Your task to perform on an android device: turn smart compose on in the gmail app Image 0: 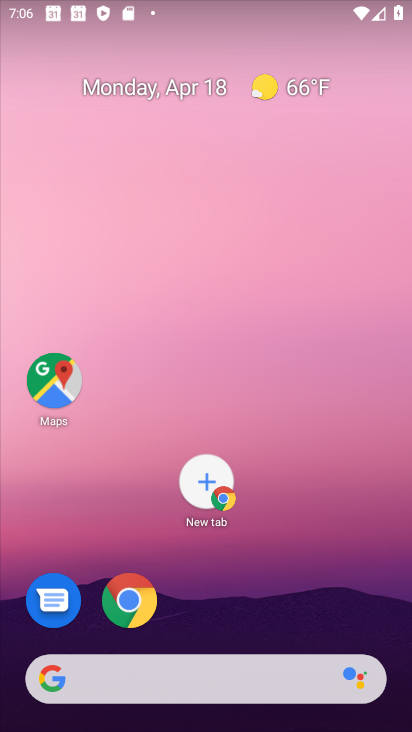
Step 0: drag from (270, 474) to (290, 30)
Your task to perform on an android device: turn smart compose on in the gmail app Image 1: 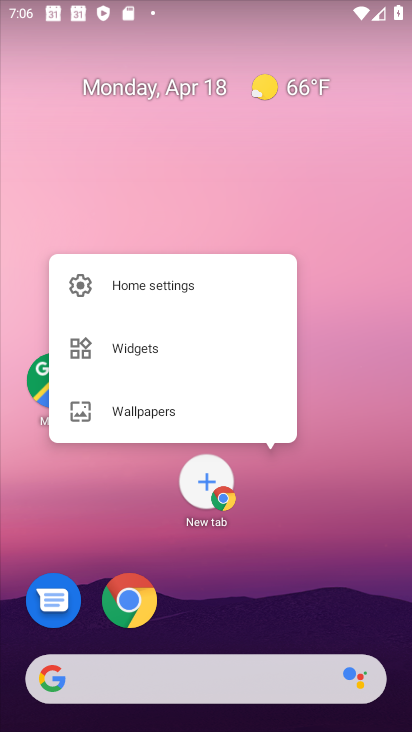
Step 1: click (367, 463)
Your task to perform on an android device: turn smart compose on in the gmail app Image 2: 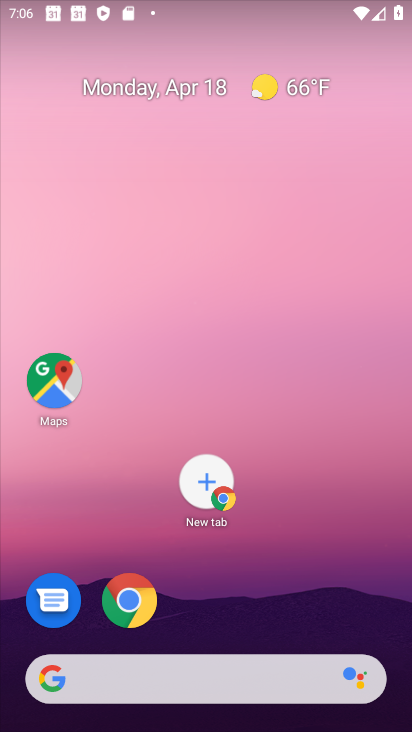
Step 2: drag from (296, 396) to (238, 12)
Your task to perform on an android device: turn smart compose on in the gmail app Image 3: 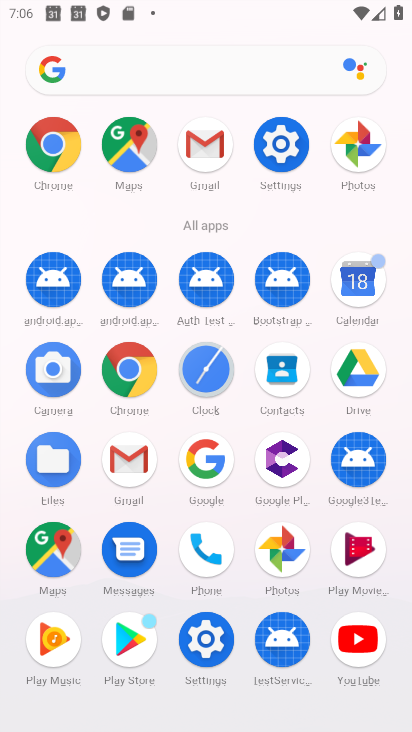
Step 3: click (119, 461)
Your task to perform on an android device: turn smart compose on in the gmail app Image 4: 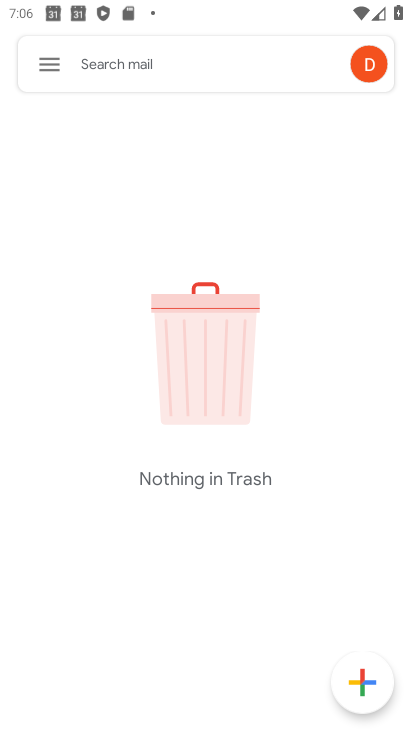
Step 4: click (42, 60)
Your task to perform on an android device: turn smart compose on in the gmail app Image 5: 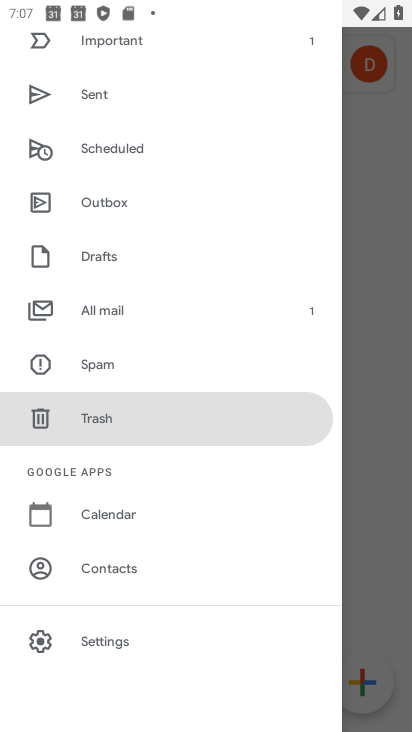
Step 5: click (97, 638)
Your task to perform on an android device: turn smart compose on in the gmail app Image 6: 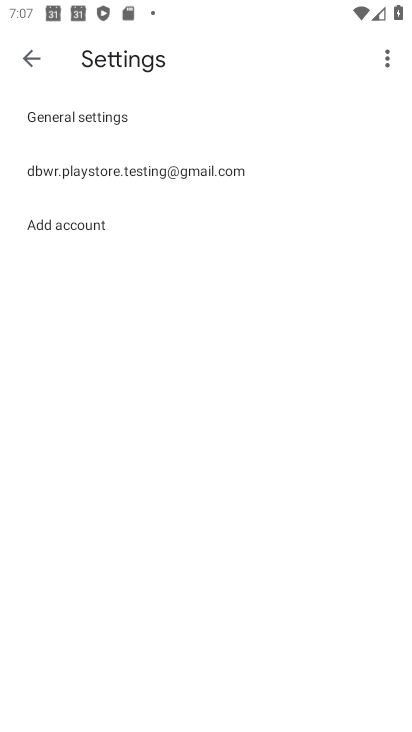
Step 6: click (113, 169)
Your task to perform on an android device: turn smart compose on in the gmail app Image 7: 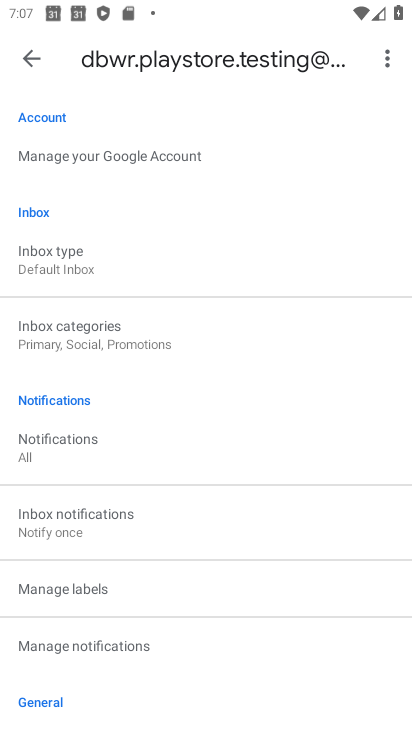
Step 7: task complete